Your task to perform on an android device: check the backup settings in the google photos Image 0: 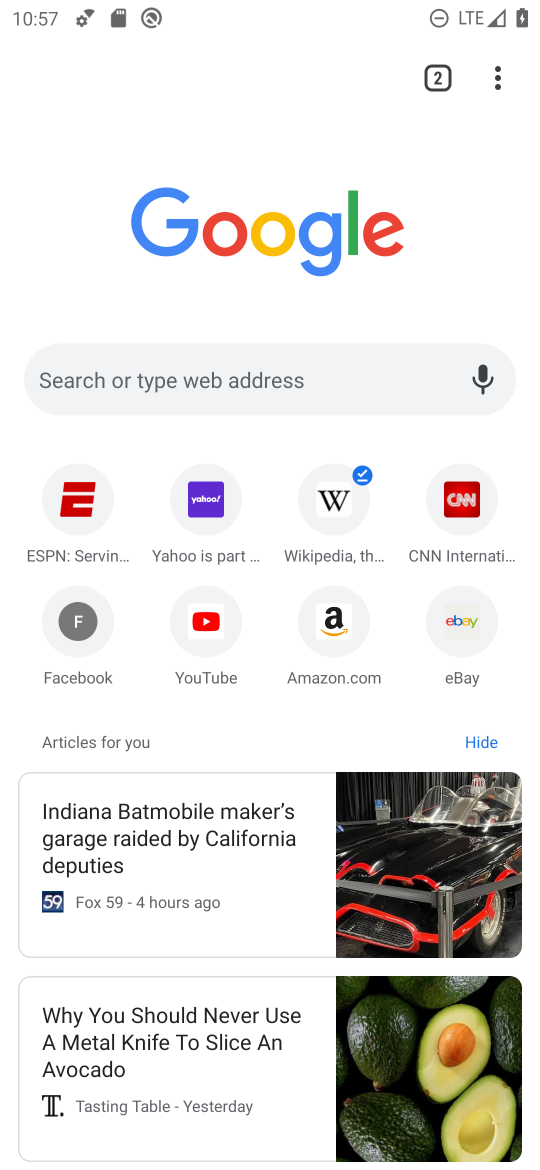
Step 0: press home button
Your task to perform on an android device: check the backup settings in the google photos Image 1: 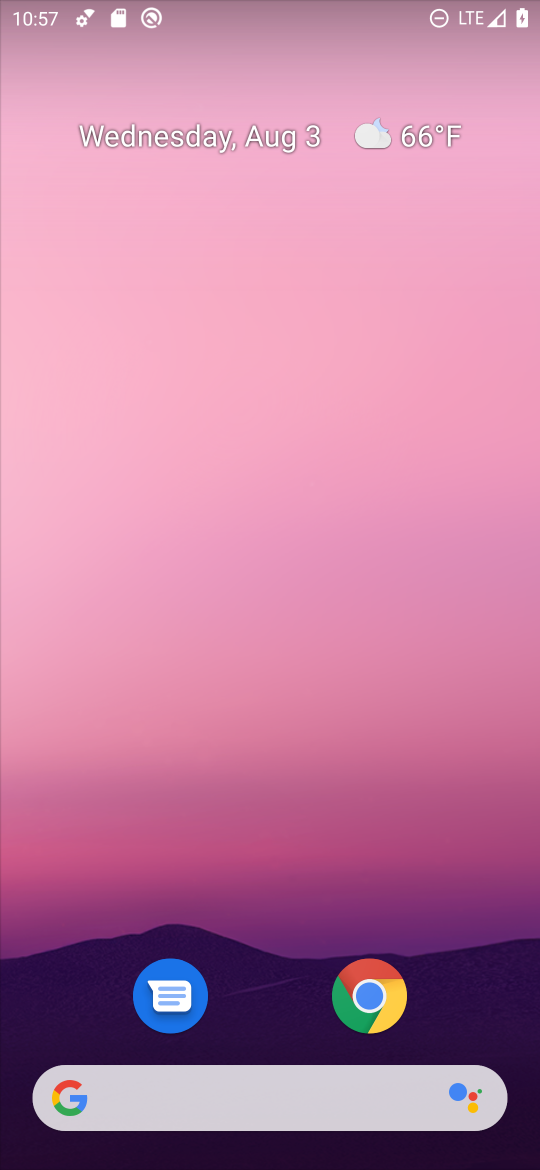
Step 1: drag from (309, 660) to (299, 38)
Your task to perform on an android device: check the backup settings in the google photos Image 2: 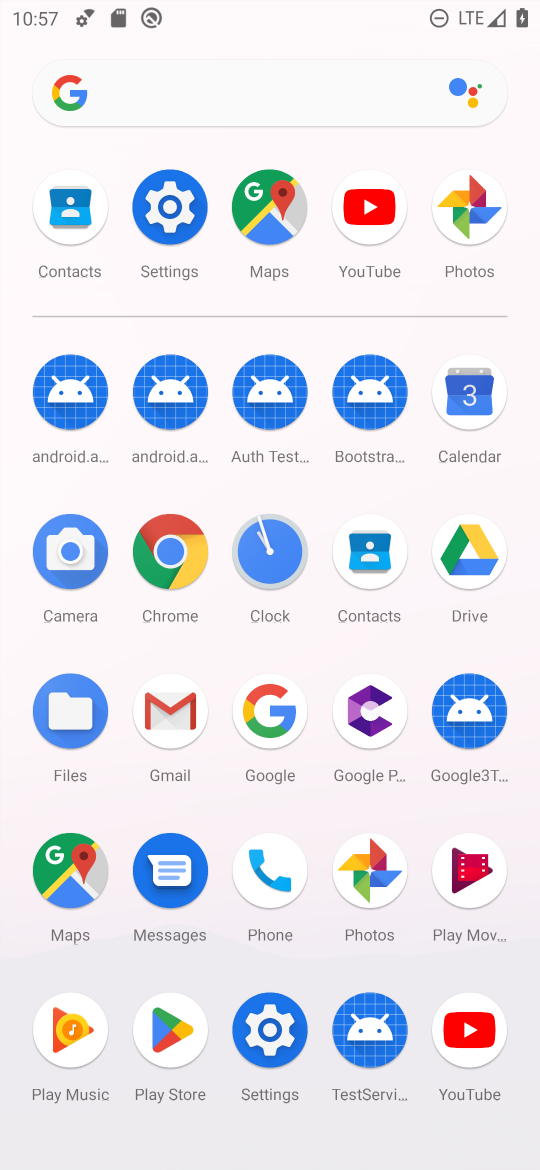
Step 2: click (368, 862)
Your task to perform on an android device: check the backup settings in the google photos Image 3: 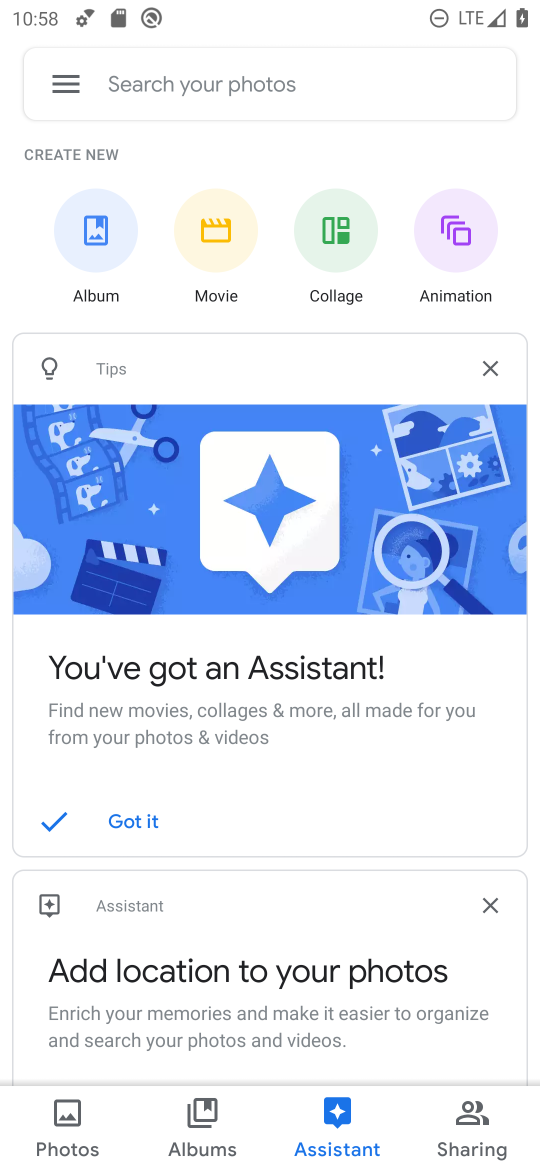
Step 3: click (63, 89)
Your task to perform on an android device: check the backup settings in the google photos Image 4: 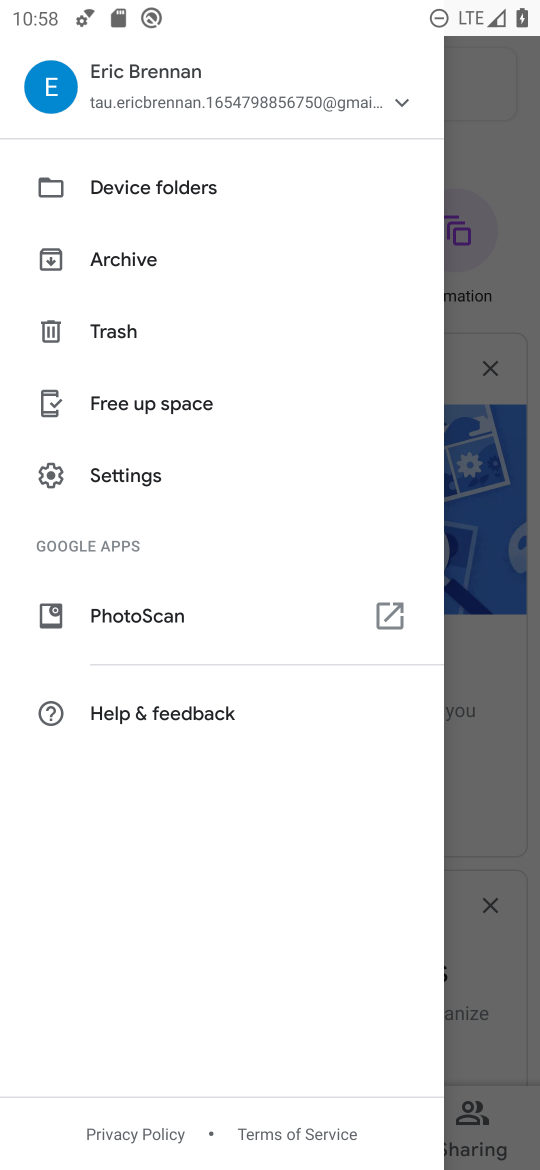
Step 4: click (130, 462)
Your task to perform on an android device: check the backup settings in the google photos Image 5: 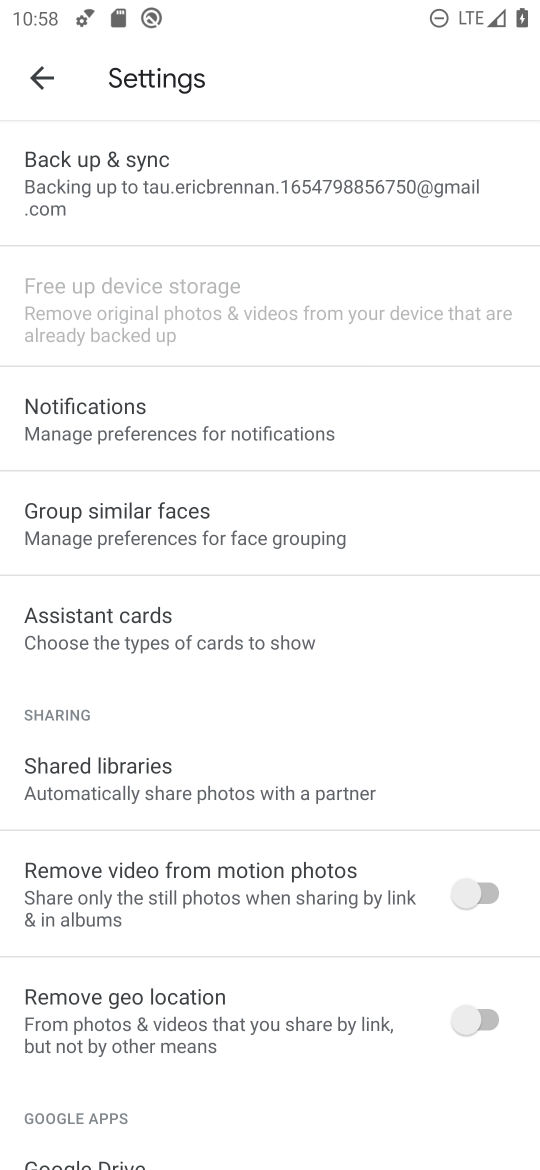
Step 5: click (206, 185)
Your task to perform on an android device: check the backup settings in the google photos Image 6: 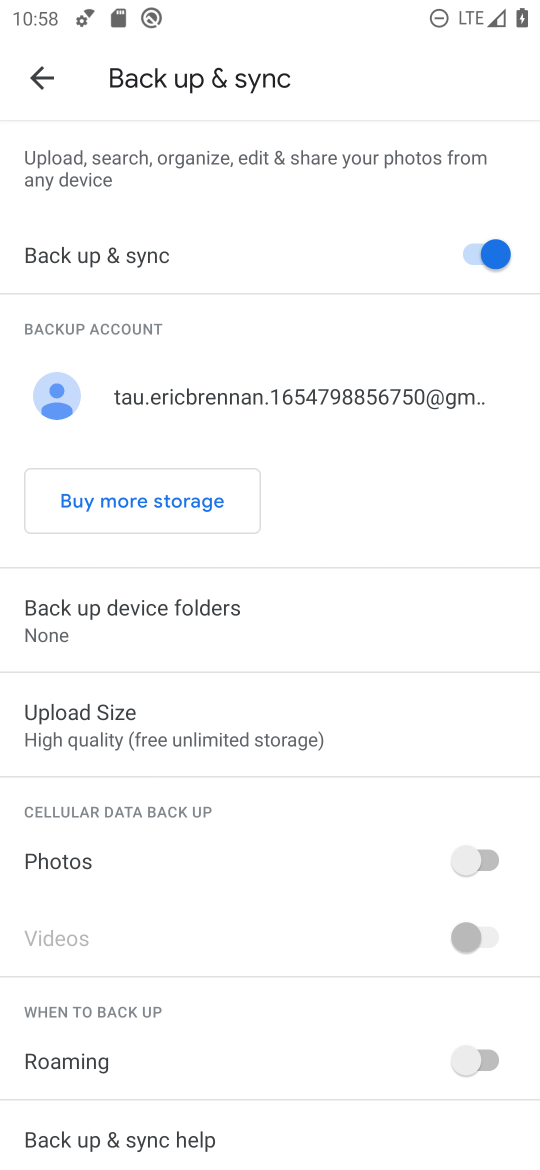
Step 6: task complete